Your task to perform on an android device: What is the news today? Image 0: 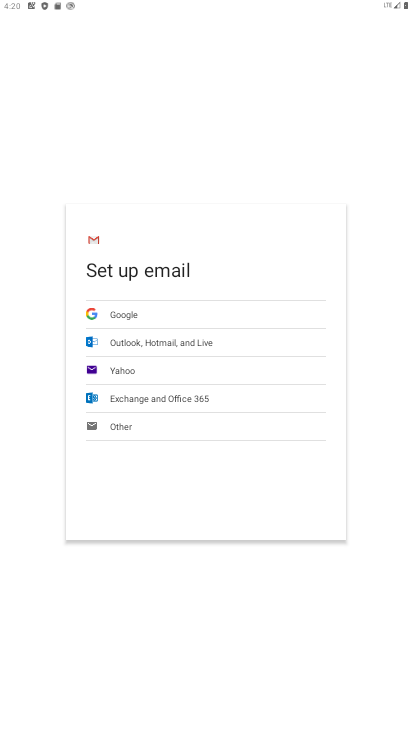
Step 0: press home button
Your task to perform on an android device: What is the news today? Image 1: 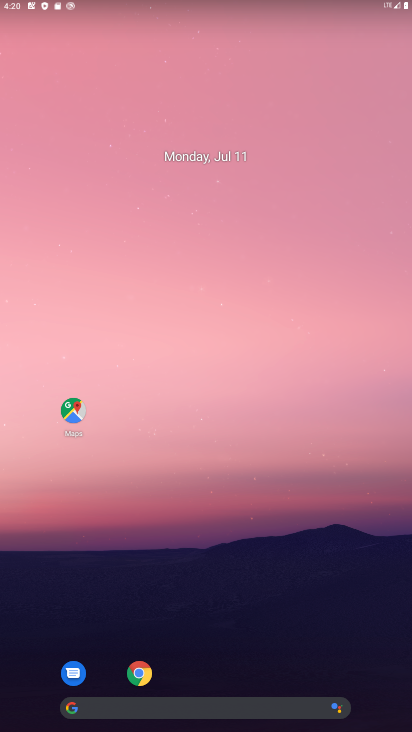
Step 1: click (137, 670)
Your task to perform on an android device: What is the news today? Image 2: 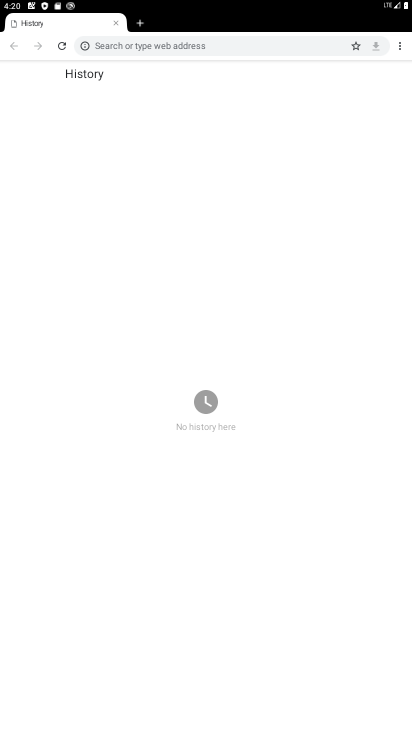
Step 2: click (283, 48)
Your task to perform on an android device: What is the news today? Image 3: 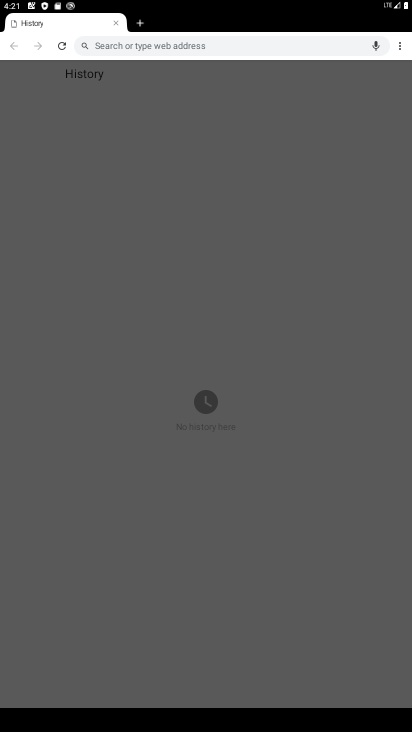
Step 3: type "news today"
Your task to perform on an android device: What is the news today? Image 4: 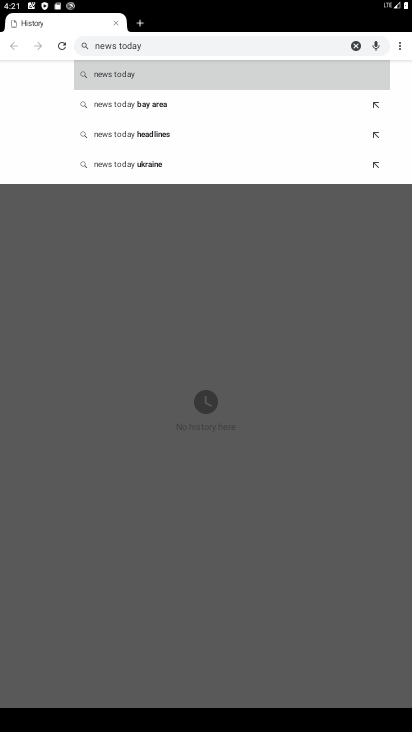
Step 4: click (162, 73)
Your task to perform on an android device: What is the news today? Image 5: 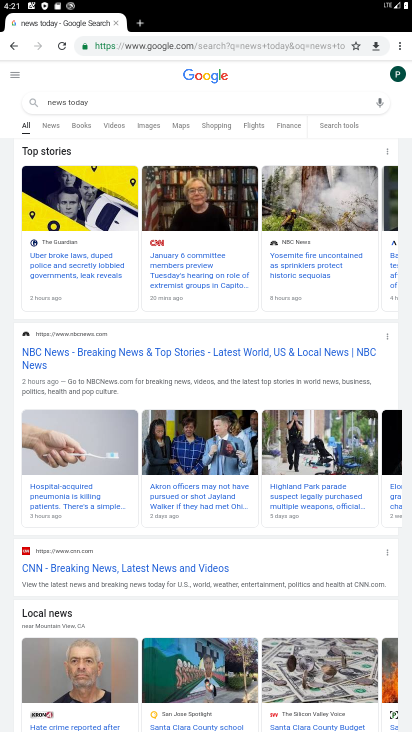
Step 5: click (92, 268)
Your task to perform on an android device: What is the news today? Image 6: 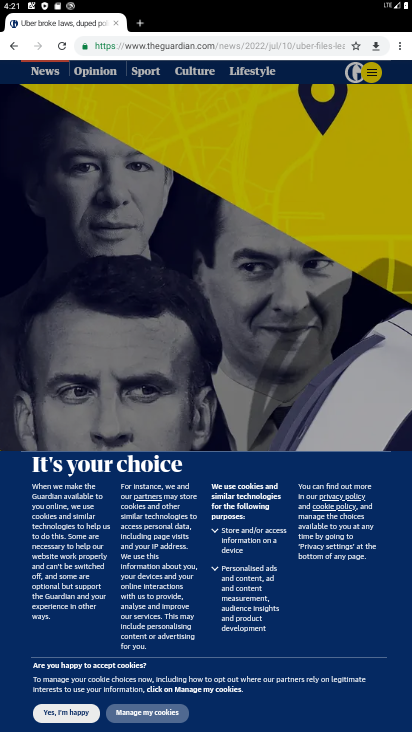
Step 6: task complete